Your task to perform on an android device: Open accessibility settings Image 0: 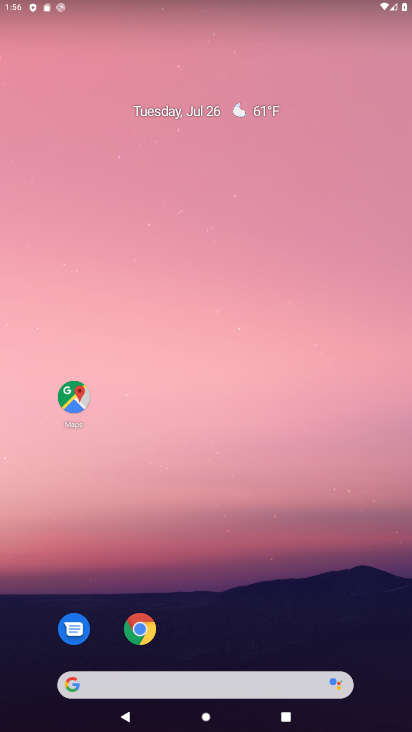
Step 0: drag from (252, 575) to (180, 13)
Your task to perform on an android device: Open accessibility settings Image 1: 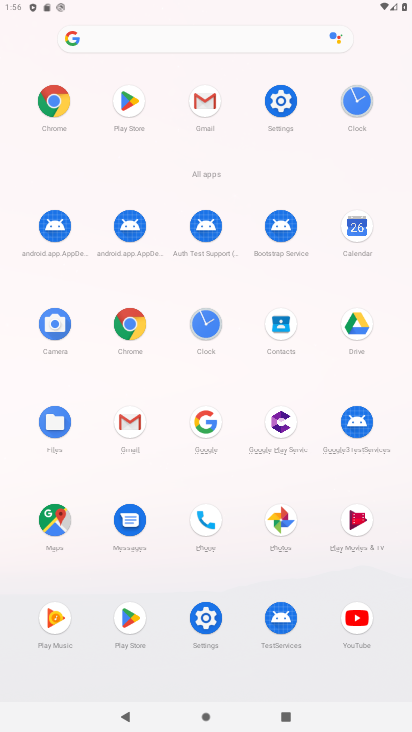
Step 1: click (277, 105)
Your task to perform on an android device: Open accessibility settings Image 2: 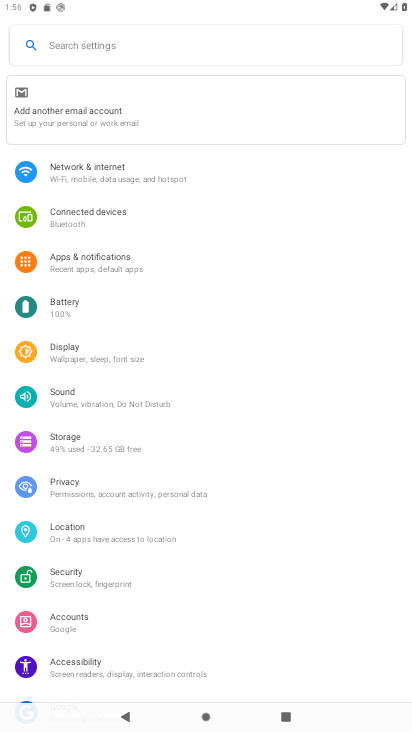
Step 2: click (81, 663)
Your task to perform on an android device: Open accessibility settings Image 3: 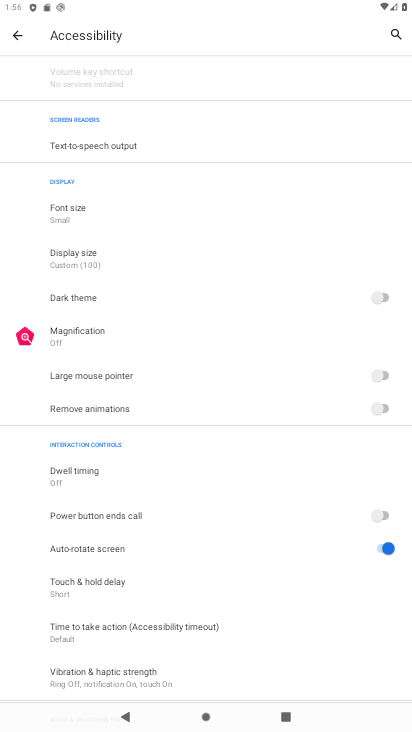
Step 3: task complete